Your task to perform on an android device: open device folders in google photos Image 0: 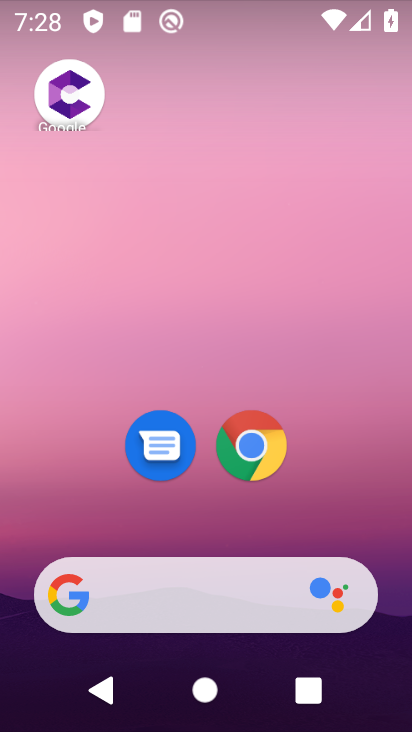
Step 0: drag from (60, 445) to (157, 58)
Your task to perform on an android device: open device folders in google photos Image 1: 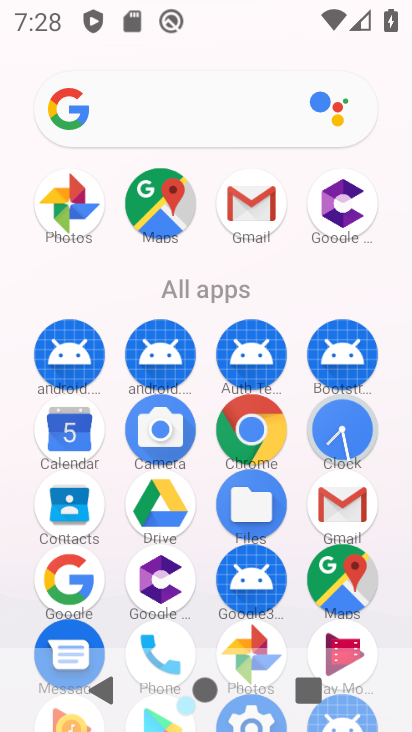
Step 1: click (65, 214)
Your task to perform on an android device: open device folders in google photos Image 2: 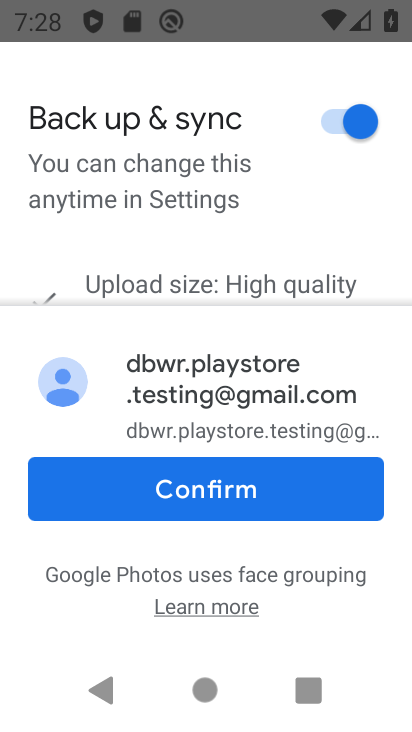
Step 2: click (251, 495)
Your task to perform on an android device: open device folders in google photos Image 3: 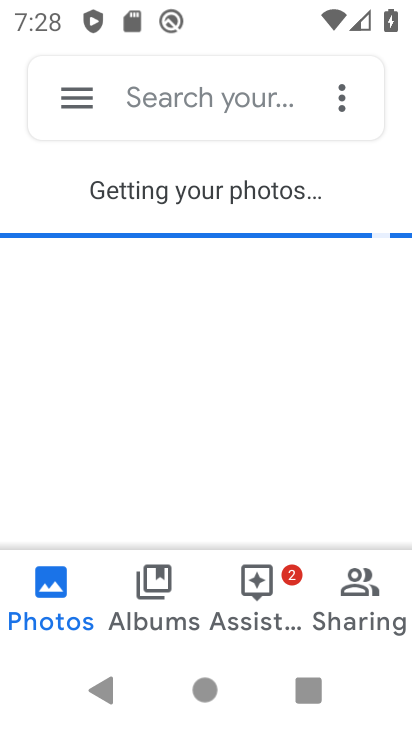
Step 3: click (73, 107)
Your task to perform on an android device: open device folders in google photos Image 4: 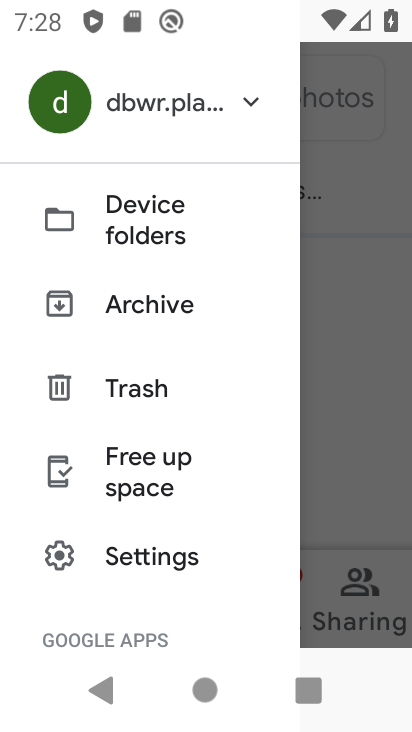
Step 4: click (139, 215)
Your task to perform on an android device: open device folders in google photos Image 5: 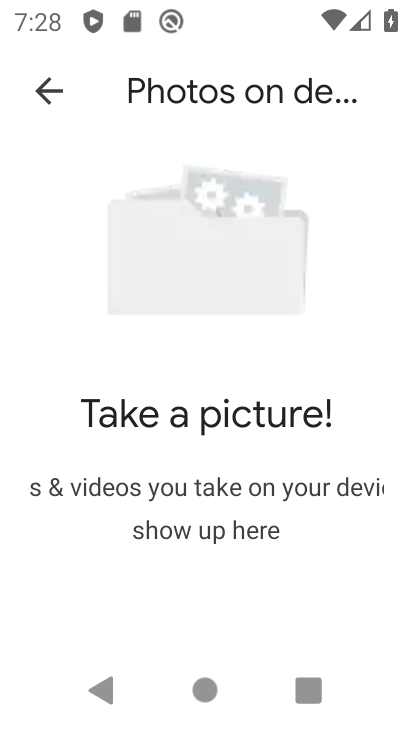
Step 5: task complete